Your task to perform on an android device: change notification settings in the gmail app Image 0: 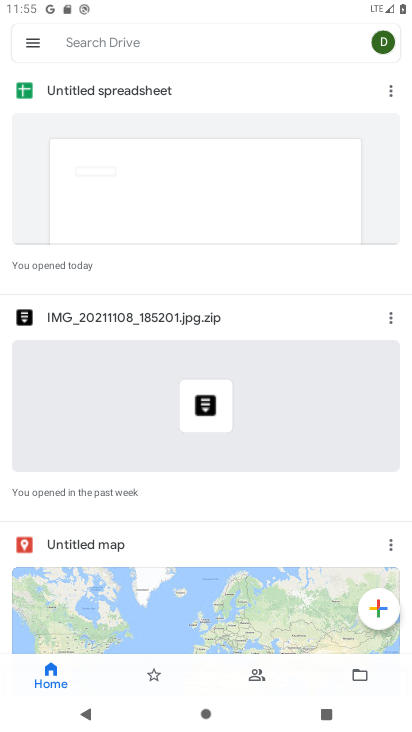
Step 0: press home button
Your task to perform on an android device: change notification settings in the gmail app Image 1: 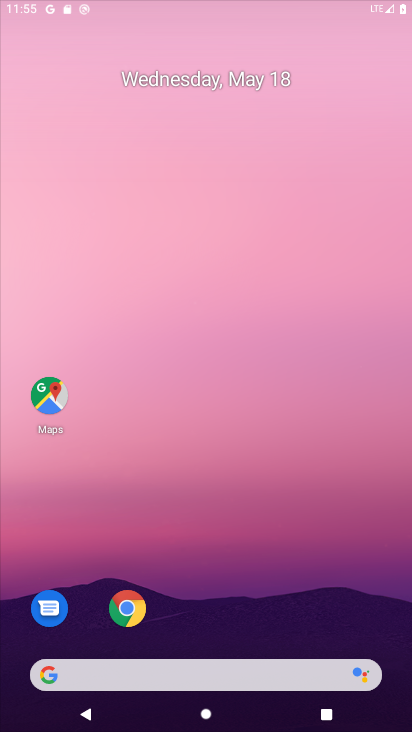
Step 1: drag from (243, 557) to (253, 2)
Your task to perform on an android device: change notification settings in the gmail app Image 2: 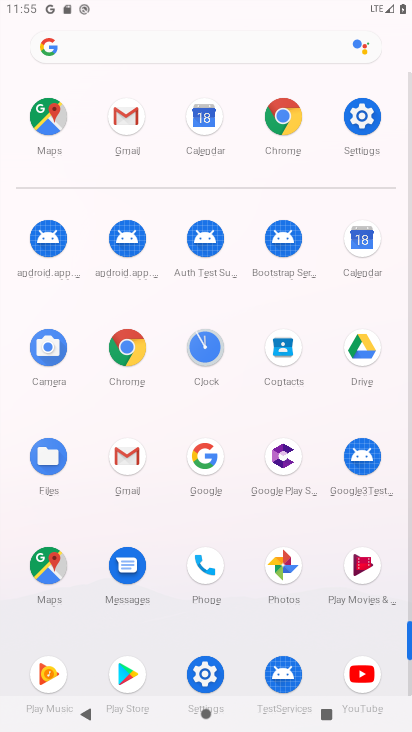
Step 2: click (122, 469)
Your task to perform on an android device: change notification settings in the gmail app Image 3: 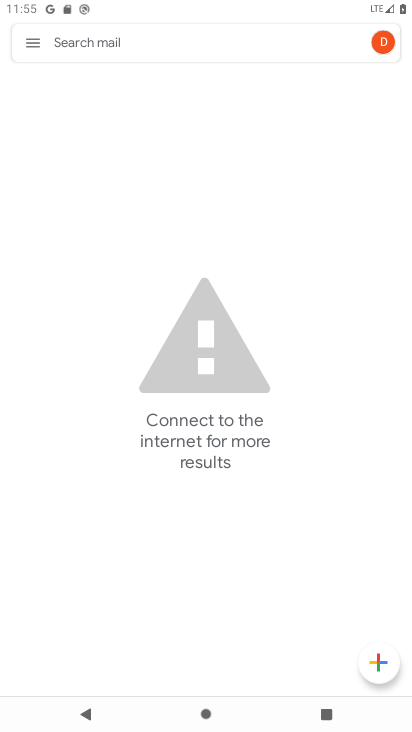
Step 3: click (40, 43)
Your task to perform on an android device: change notification settings in the gmail app Image 4: 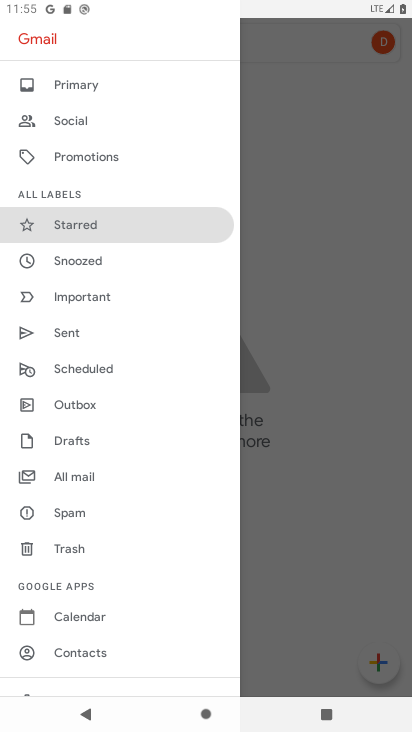
Step 4: click (130, 646)
Your task to perform on an android device: change notification settings in the gmail app Image 5: 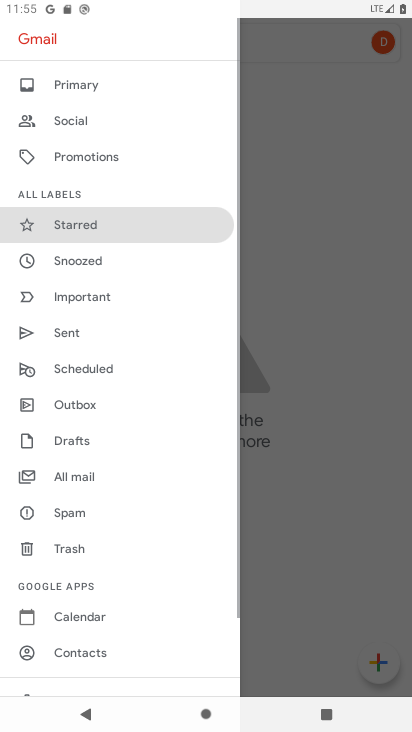
Step 5: drag from (144, 567) to (145, 290)
Your task to perform on an android device: change notification settings in the gmail app Image 6: 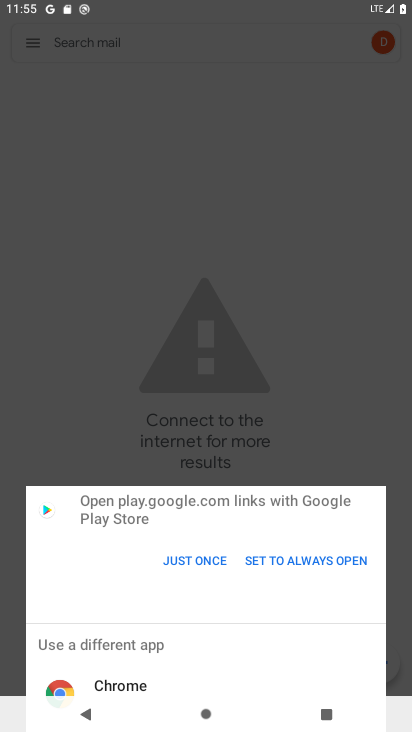
Step 6: click (102, 219)
Your task to perform on an android device: change notification settings in the gmail app Image 7: 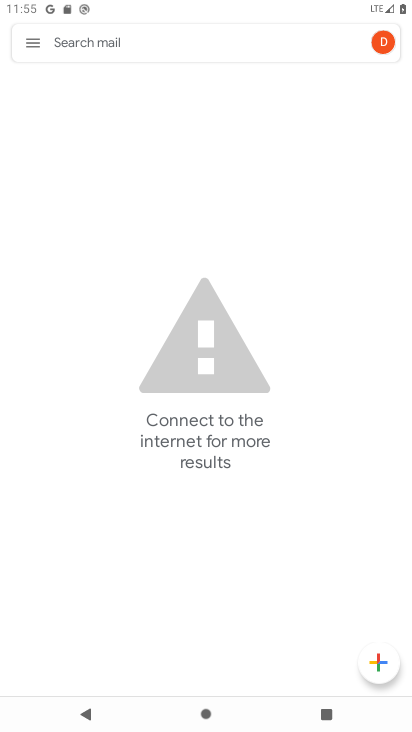
Step 7: click (39, 41)
Your task to perform on an android device: change notification settings in the gmail app Image 8: 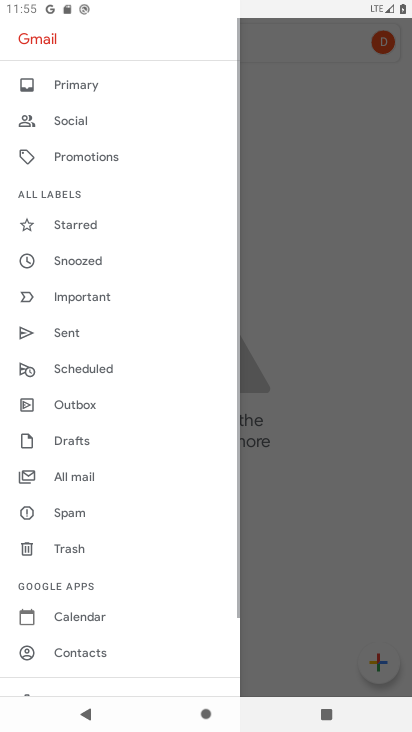
Step 8: drag from (62, 591) to (120, 181)
Your task to perform on an android device: change notification settings in the gmail app Image 9: 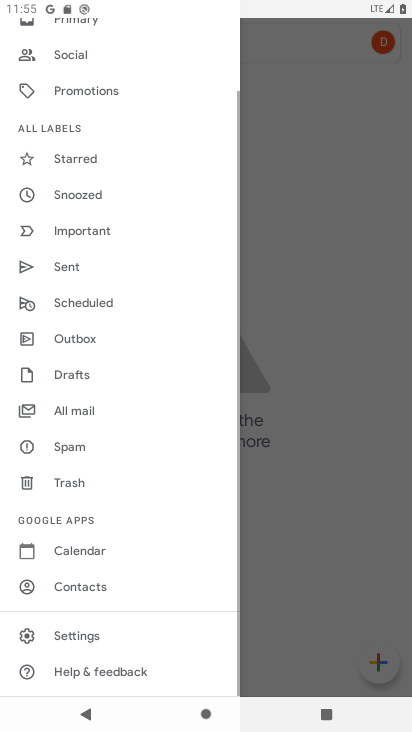
Step 9: click (81, 634)
Your task to perform on an android device: change notification settings in the gmail app Image 10: 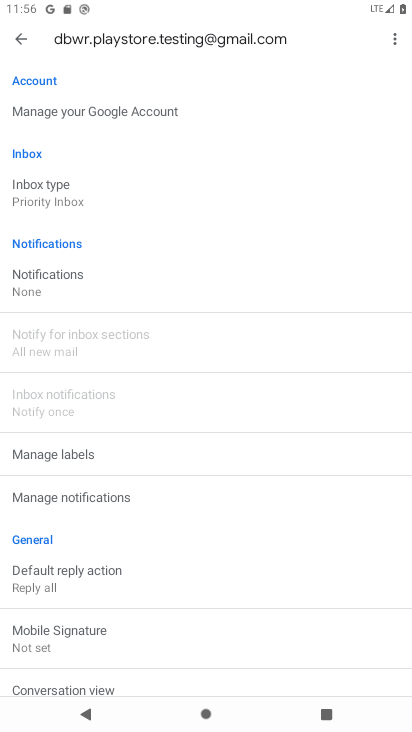
Step 10: click (36, 274)
Your task to perform on an android device: change notification settings in the gmail app Image 11: 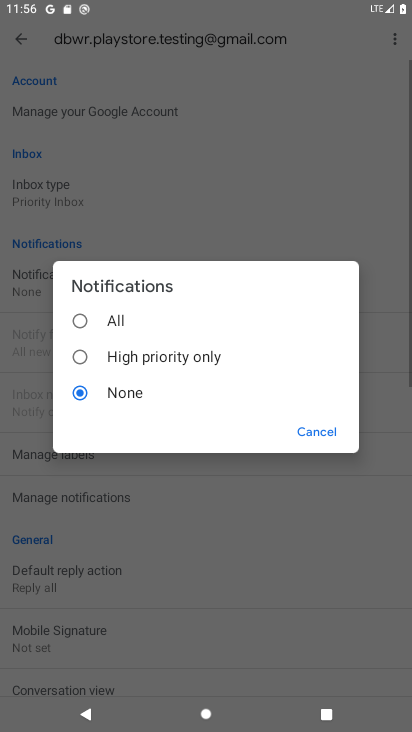
Step 11: click (88, 313)
Your task to perform on an android device: change notification settings in the gmail app Image 12: 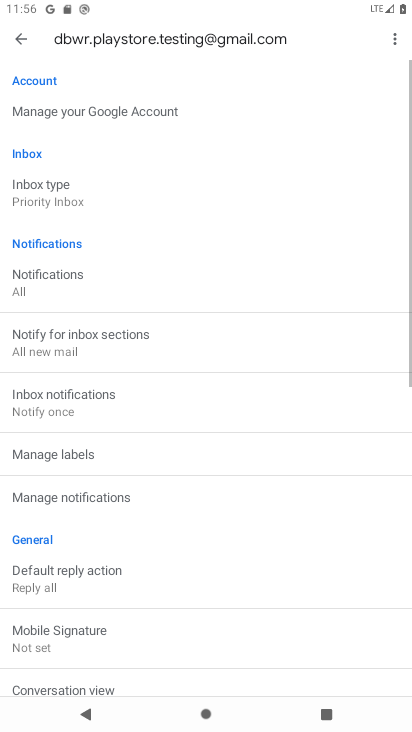
Step 12: task complete